Your task to perform on an android device: Check the weather Image 0: 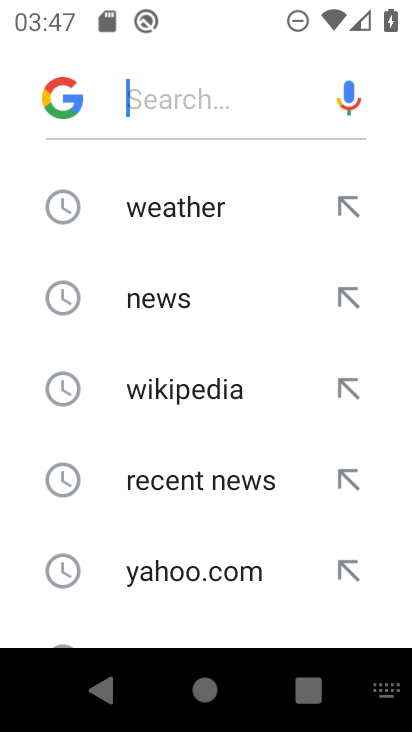
Step 0: click (149, 212)
Your task to perform on an android device: Check the weather Image 1: 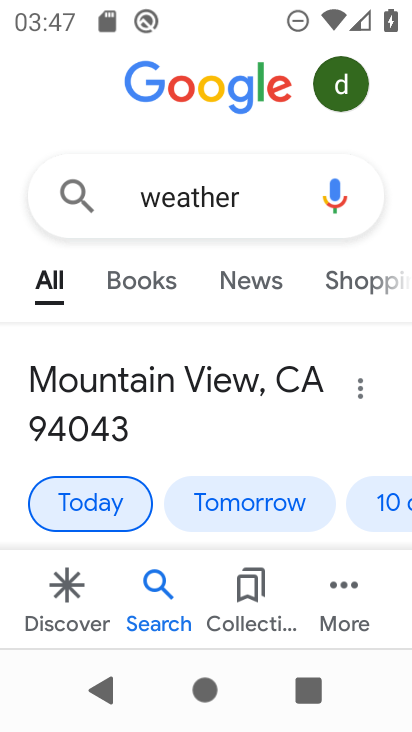
Step 1: task complete